Your task to perform on an android device: move an email to a new category in the gmail app Image 0: 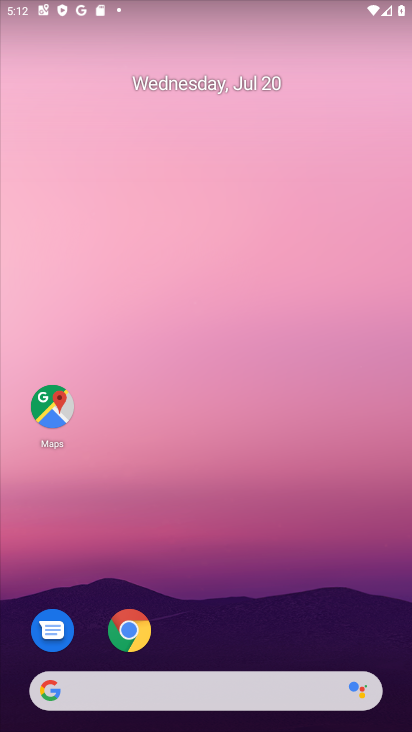
Step 0: drag from (166, 694) to (168, 67)
Your task to perform on an android device: move an email to a new category in the gmail app Image 1: 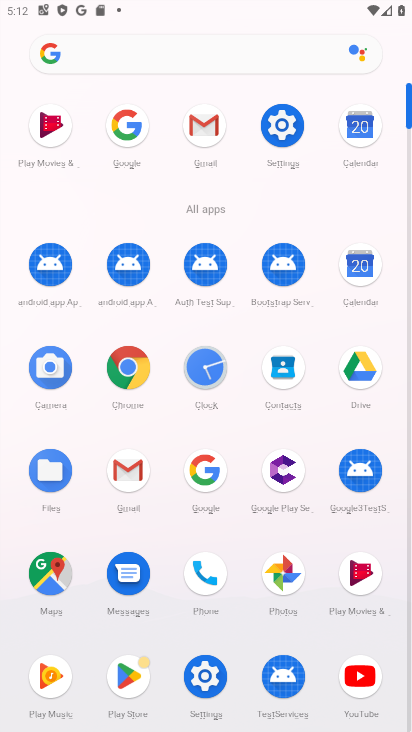
Step 1: click (204, 119)
Your task to perform on an android device: move an email to a new category in the gmail app Image 2: 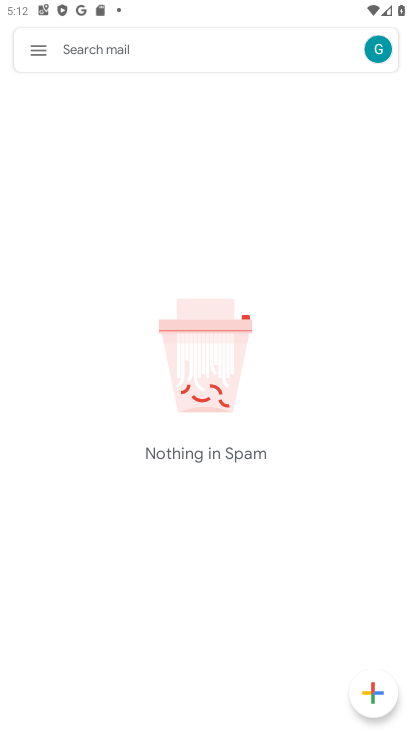
Step 2: click (31, 52)
Your task to perform on an android device: move an email to a new category in the gmail app Image 3: 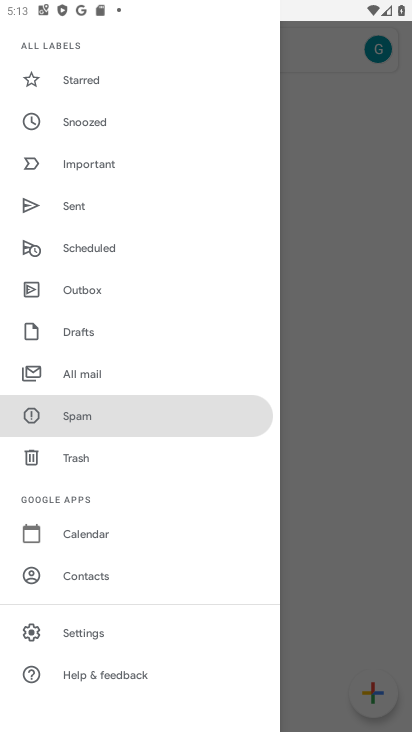
Step 3: drag from (98, 77) to (104, 286)
Your task to perform on an android device: move an email to a new category in the gmail app Image 4: 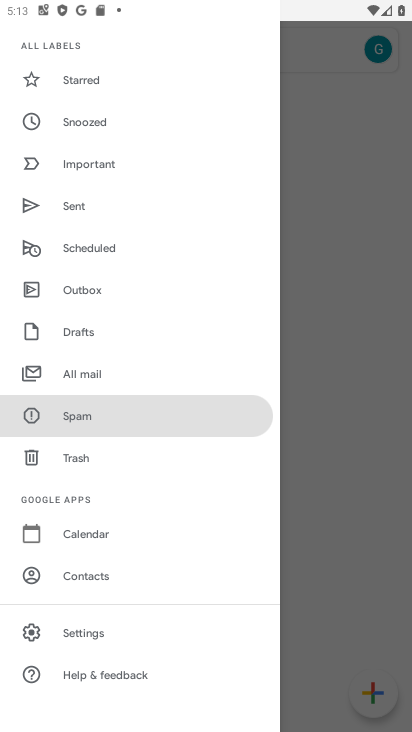
Step 4: drag from (73, 113) to (88, 300)
Your task to perform on an android device: move an email to a new category in the gmail app Image 5: 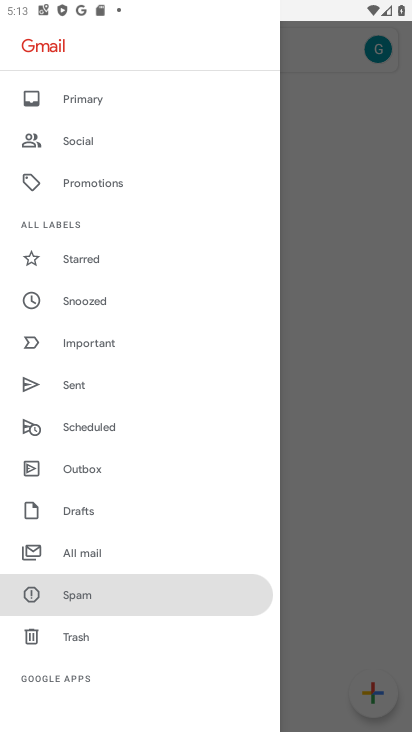
Step 5: click (81, 95)
Your task to perform on an android device: move an email to a new category in the gmail app Image 6: 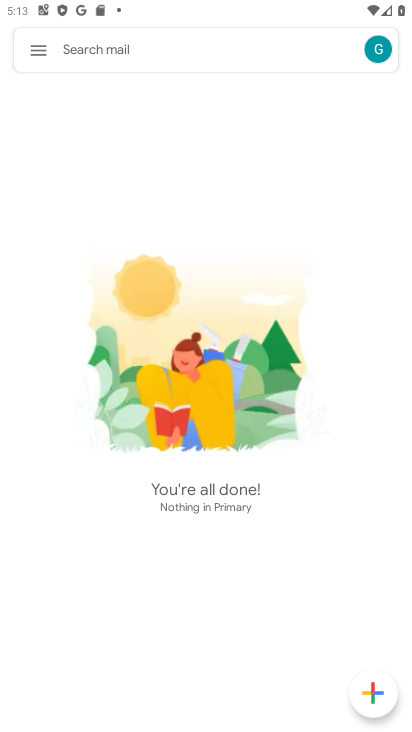
Step 6: click (37, 52)
Your task to perform on an android device: move an email to a new category in the gmail app Image 7: 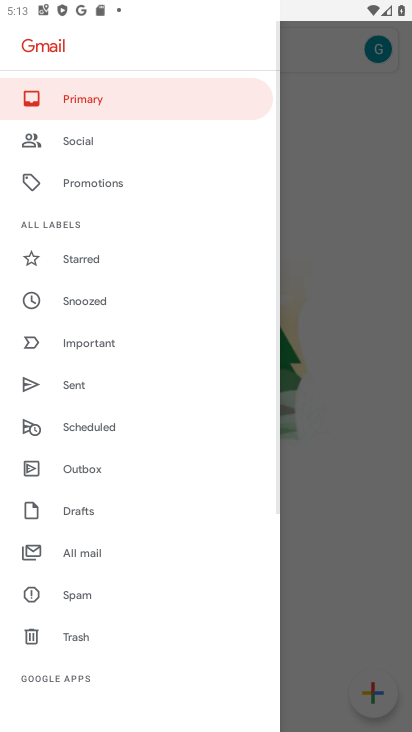
Step 7: click (90, 141)
Your task to perform on an android device: move an email to a new category in the gmail app Image 8: 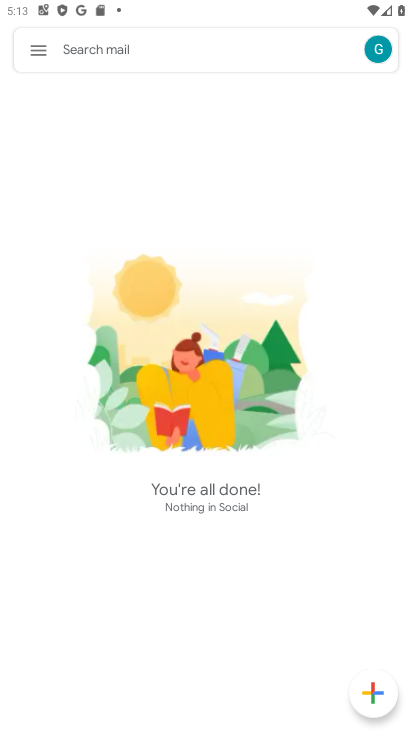
Step 8: click (38, 56)
Your task to perform on an android device: move an email to a new category in the gmail app Image 9: 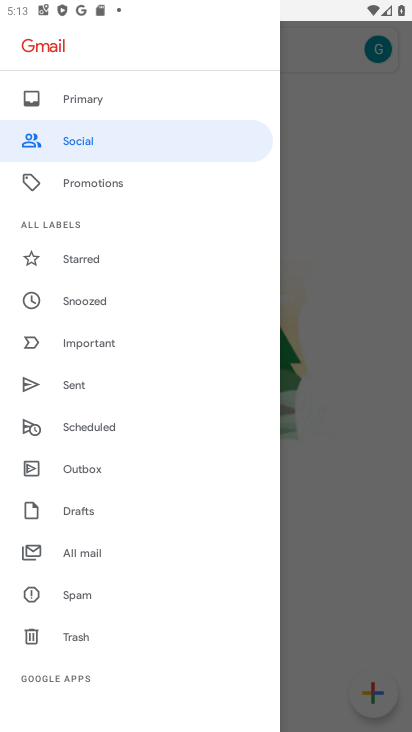
Step 9: click (74, 178)
Your task to perform on an android device: move an email to a new category in the gmail app Image 10: 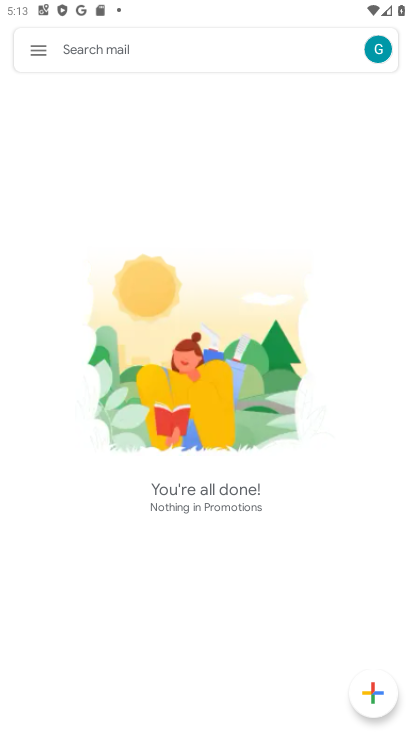
Step 10: click (36, 47)
Your task to perform on an android device: move an email to a new category in the gmail app Image 11: 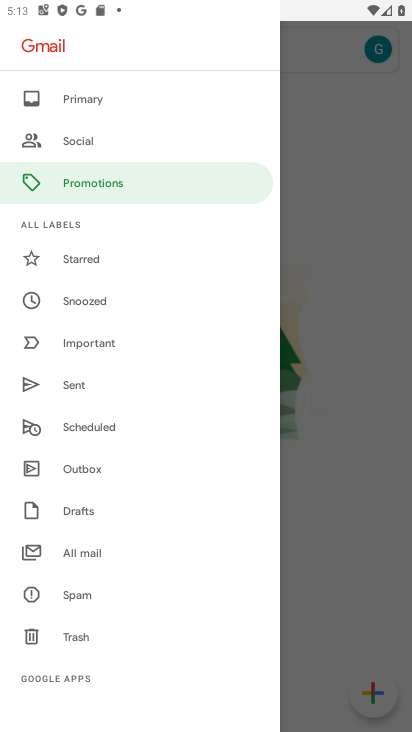
Step 11: click (76, 255)
Your task to perform on an android device: move an email to a new category in the gmail app Image 12: 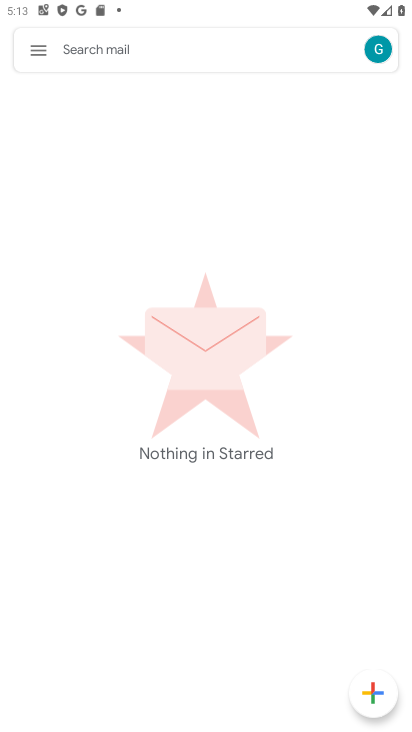
Step 12: click (39, 50)
Your task to perform on an android device: move an email to a new category in the gmail app Image 13: 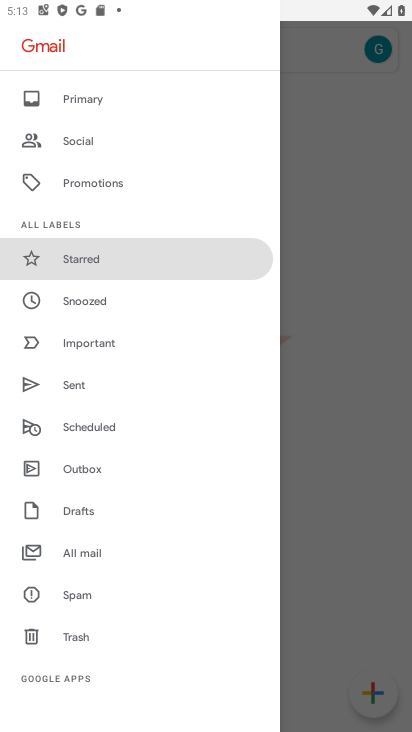
Step 13: click (59, 304)
Your task to perform on an android device: move an email to a new category in the gmail app Image 14: 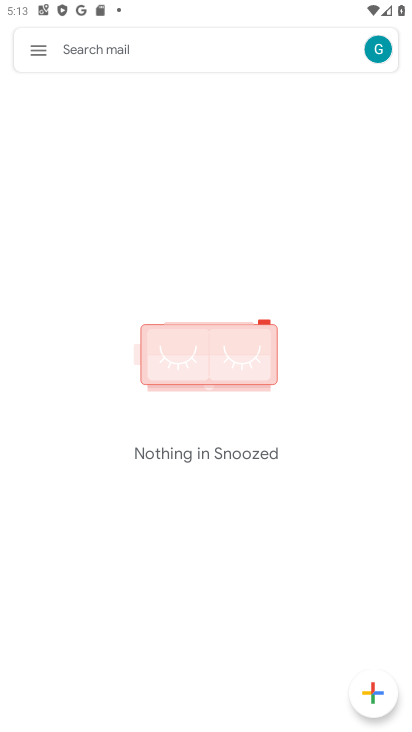
Step 14: click (41, 52)
Your task to perform on an android device: move an email to a new category in the gmail app Image 15: 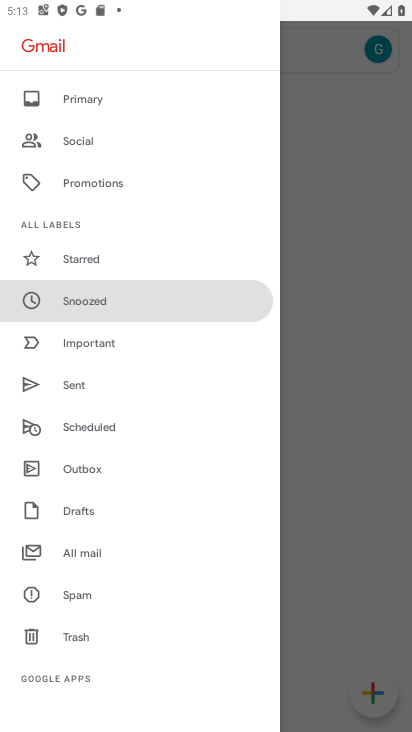
Step 15: click (64, 340)
Your task to perform on an android device: move an email to a new category in the gmail app Image 16: 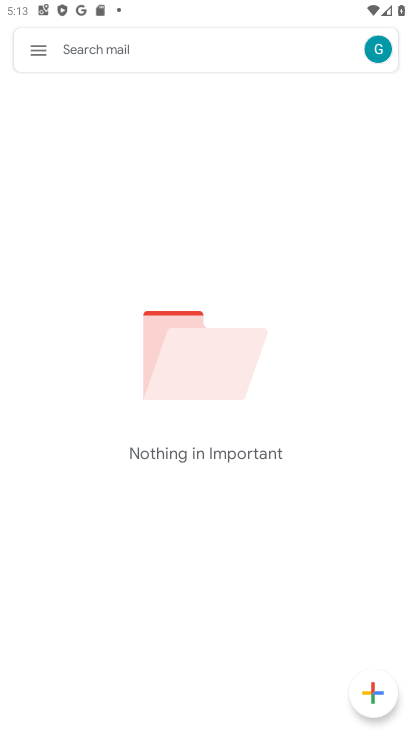
Step 16: click (38, 50)
Your task to perform on an android device: move an email to a new category in the gmail app Image 17: 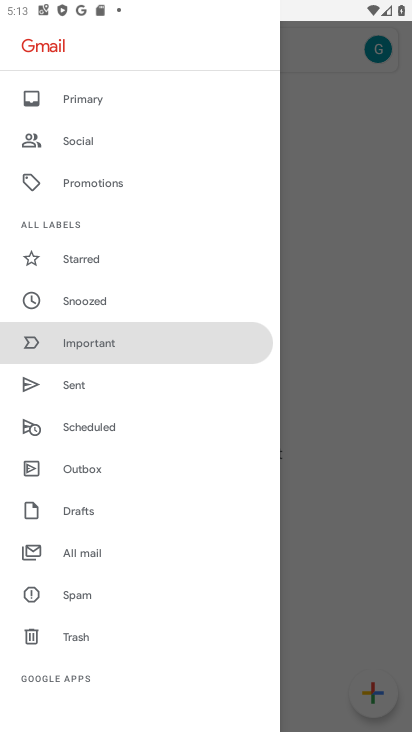
Step 17: click (82, 376)
Your task to perform on an android device: move an email to a new category in the gmail app Image 18: 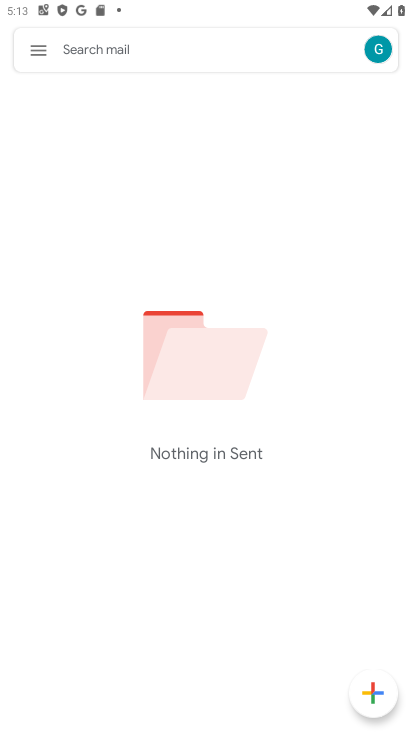
Step 18: click (42, 43)
Your task to perform on an android device: move an email to a new category in the gmail app Image 19: 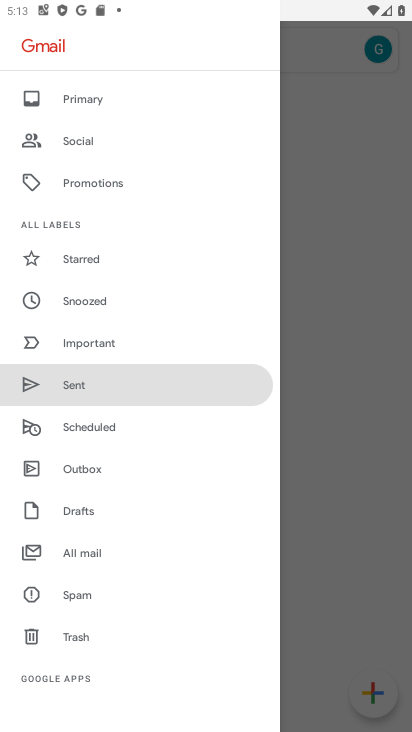
Step 19: click (77, 423)
Your task to perform on an android device: move an email to a new category in the gmail app Image 20: 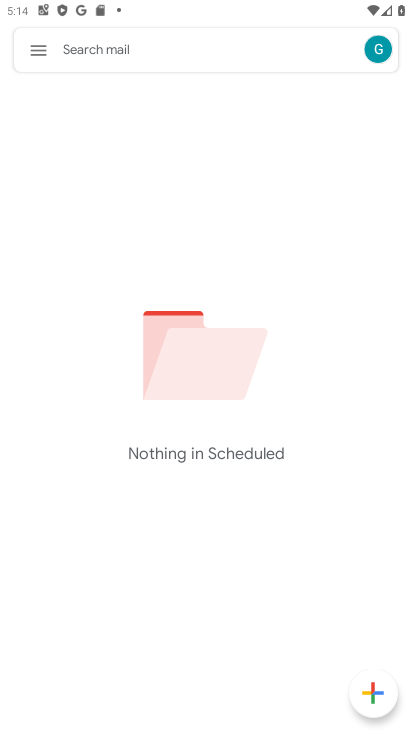
Step 20: click (37, 49)
Your task to perform on an android device: move an email to a new category in the gmail app Image 21: 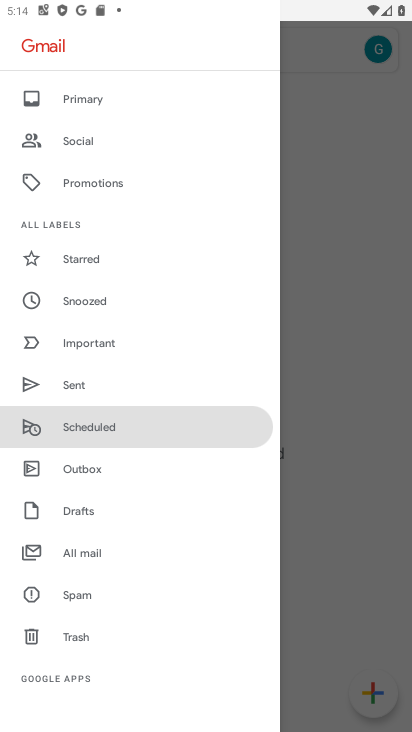
Step 21: click (63, 469)
Your task to perform on an android device: move an email to a new category in the gmail app Image 22: 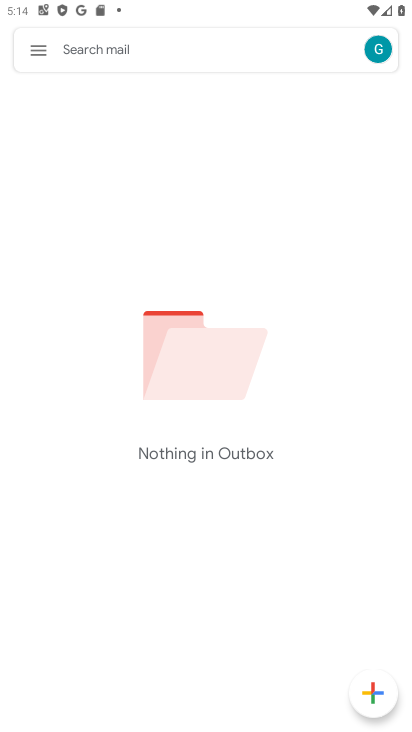
Step 22: click (29, 52)
Your task to perform on an android device: move an email to a new category in the gmail app Image 23: 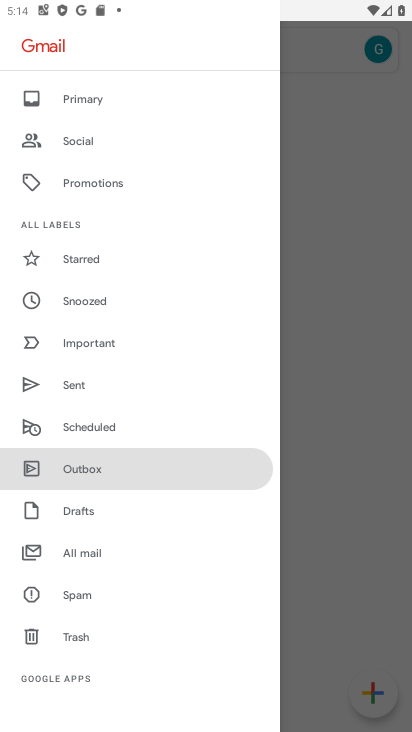
Step 23: click (78, 502)
Your task to perform on an android device: move an email to a new category in the gmail app Image 24: 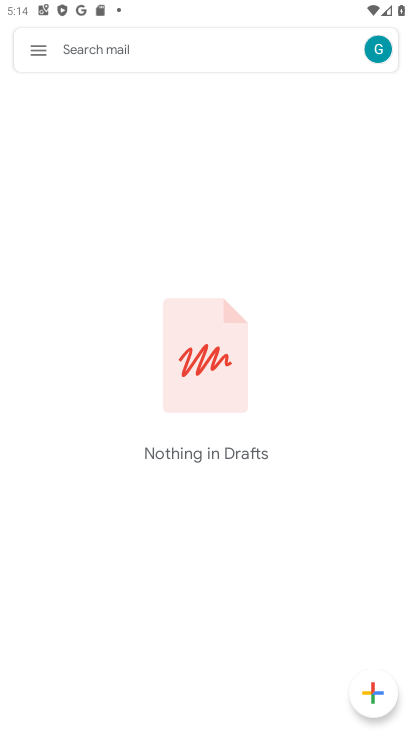
Step 24: click (37, 47)
Your task to perform on an android device: move an email to a new category in the gmail app Image 25: 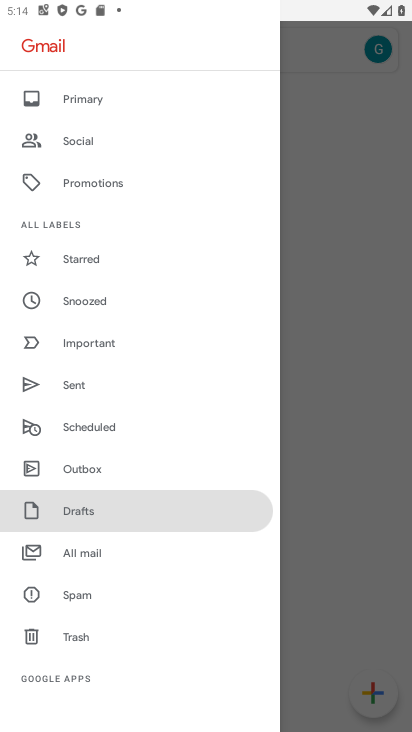
Step 25: click (94, 547)
Your task to perform on an android device: move an email to a new category in the gmail app Image 26: 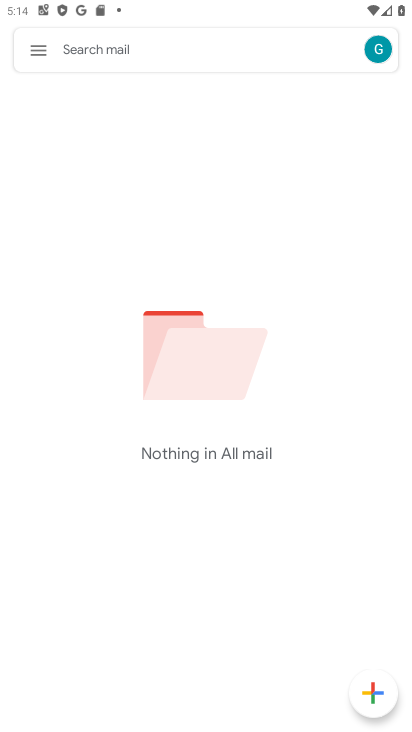
Step 26: click (39, 50)
Your task to perform on an android device: move an email to a new category in the gmail app Image 27: 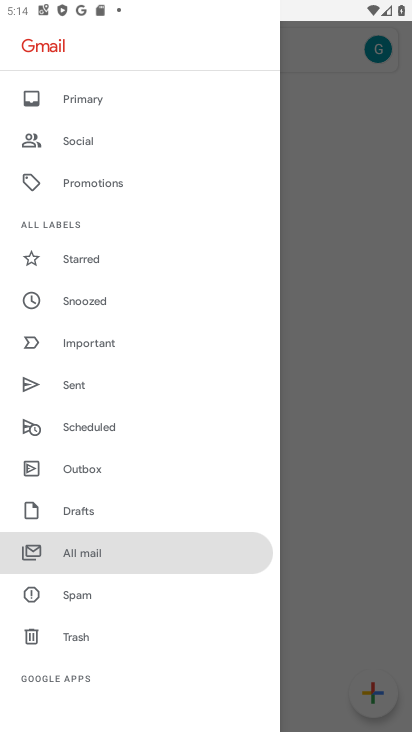
Step 27: click (71, 587)
Your task to perform on an android device: move an email to a new category in the gmail app Image 28: 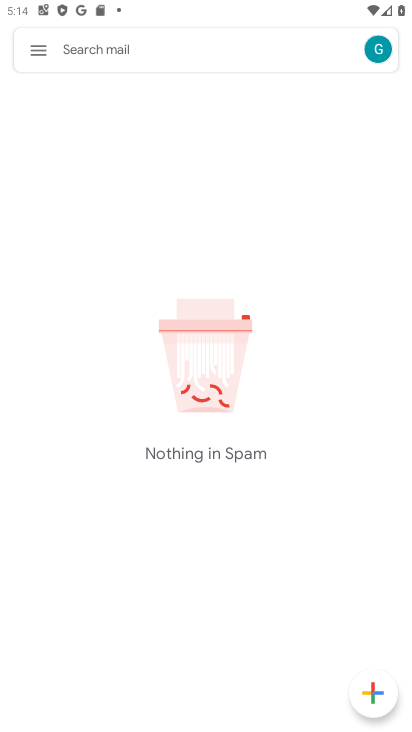
Step 28: task complete